Your task to perform on an android device: Open calendar and show me the fourth week of next month Image 0: 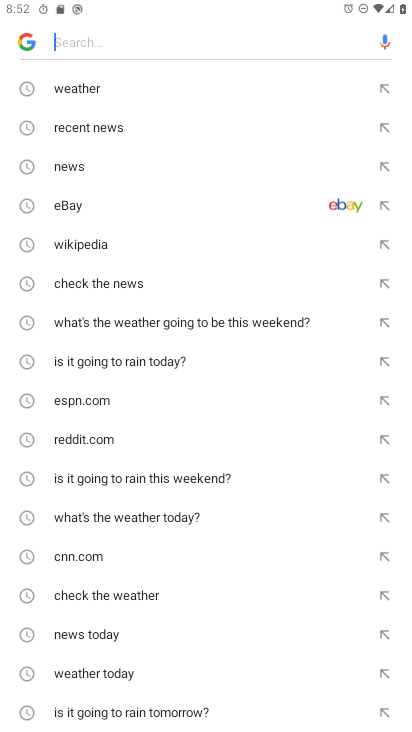
Step 0: drag from (175, 679) to (237, 427)
Your task to perform on an android device: Open calendar and show me the fourth week of next month Image 1: 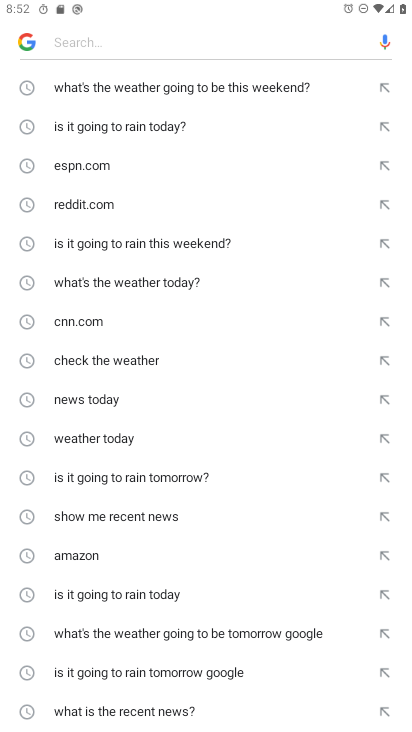
Step 1: press home button
Your task to perform on an android device: Open calendar and show me the fourth week of next month Image 2: 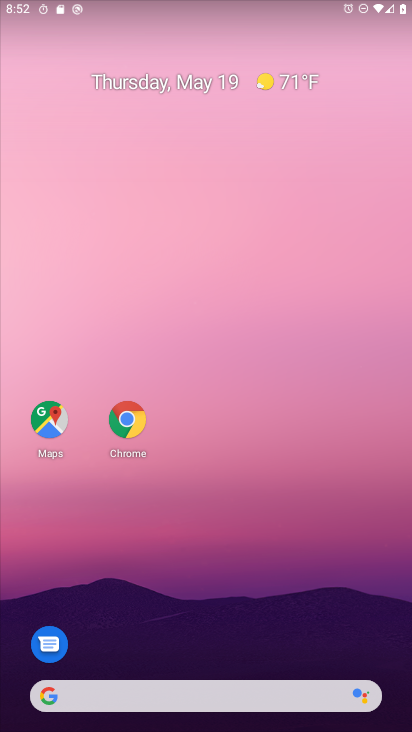
Step 2: drag from (122, 677) to (157, 290)
Your task to perform on an android device: Open calendar and show me the fourth week of next month Image 3: 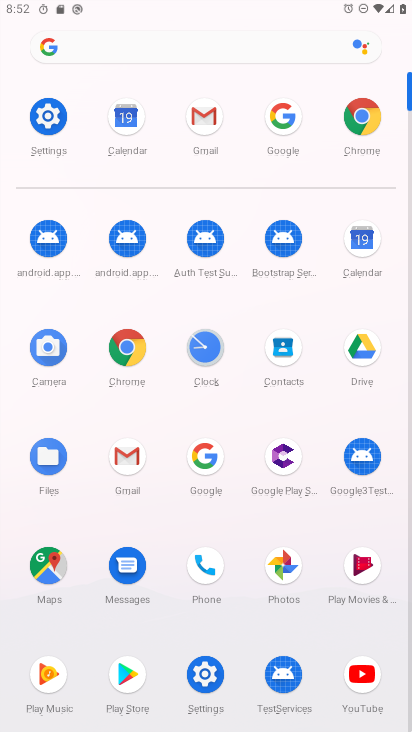
Step 3: click (368, 230)
Your task to perform on an android device: Open calendar and show me the fourth week of next month Image 4: 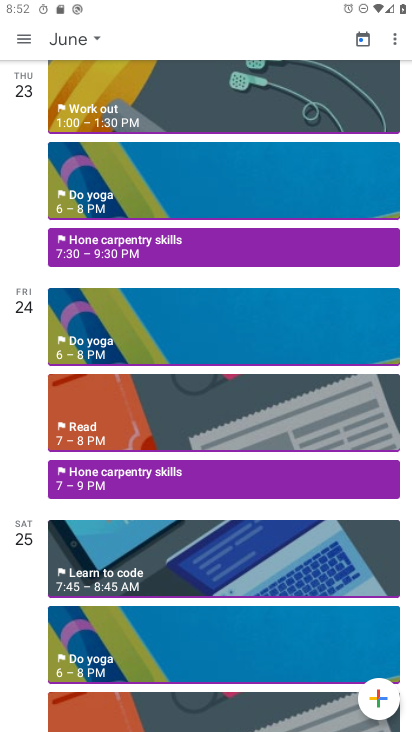
Step 4: task complete